Your task to perform on an android device: change your default location settings in chrome Image 0: 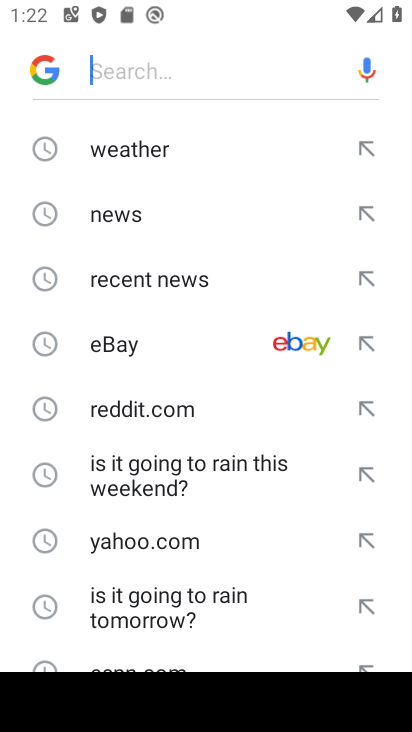
Step 0: press home button
Your task to perform on an android device: change your default location settings in chrome Image 1: 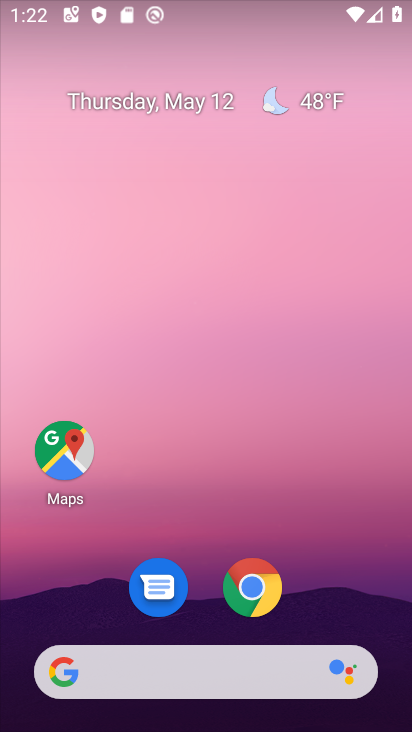
Step 1: click (258, 609)
Your task to perform on an android device: change your default location settings in chrome Image 2: 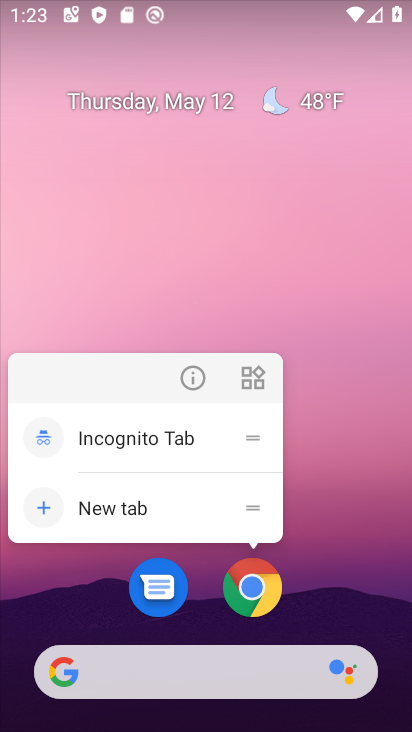
Step 2: click (255, 612)
Your task to perform on an android device: change your default location settings in chrome Image 3: 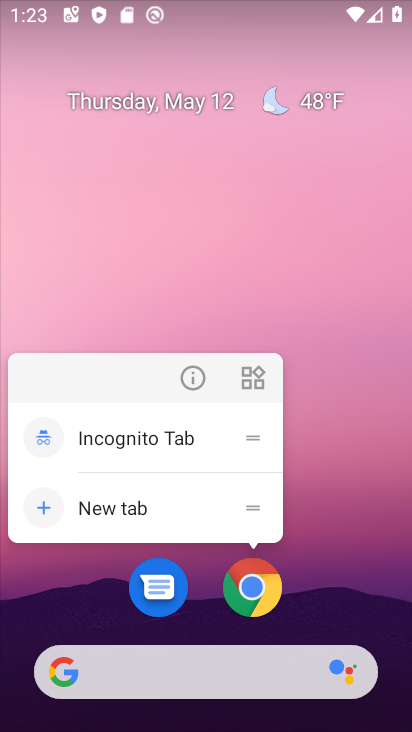
Step 3: click (267, 597)
Your task to perform on an android device: change your default location settings in chrome Image 4: 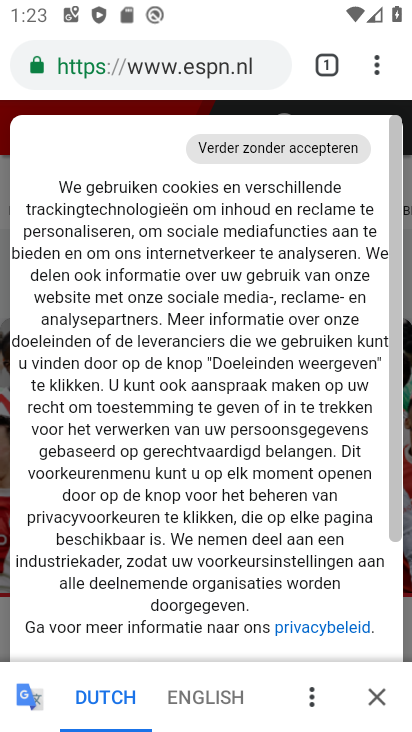
Step 4: click (385, 63)
Your task to perform on an android device: change your default location settings in chrome Image 5: 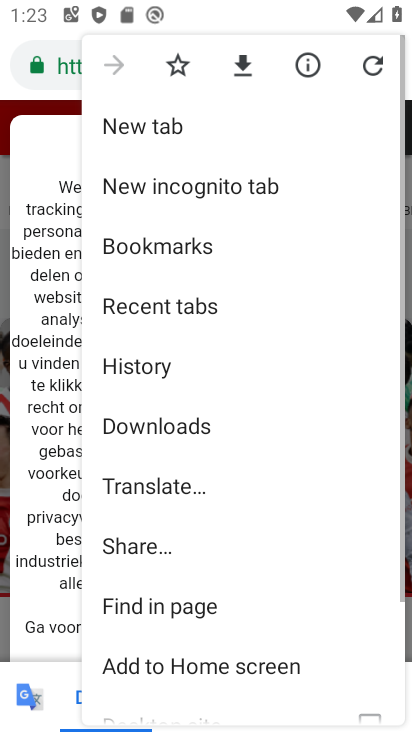
Step 5: drag from (244, 483) to (247, 181)
Your task to perform on an android device: change your default location settings in chrome Image 6: 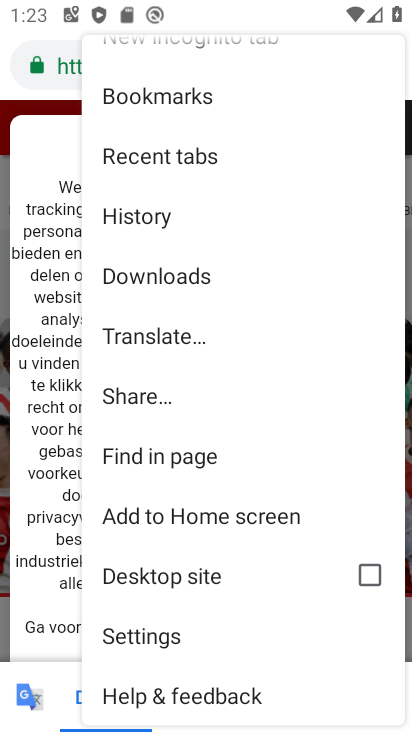
Step 6: drag from (240, 443) to (231, 230)
Your task to perform on an android device: change your default location settings in chrome Image 7: 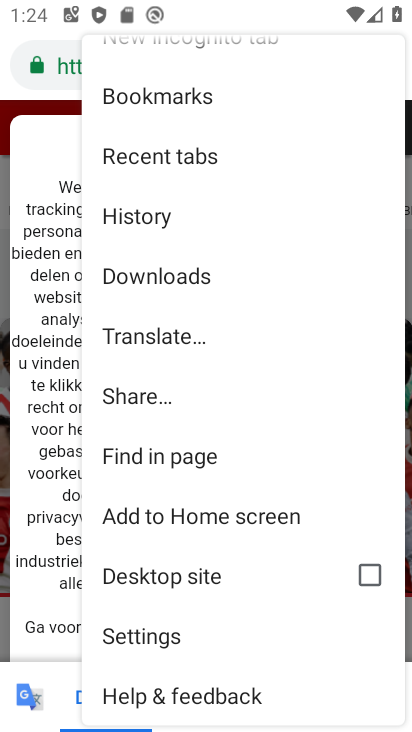
Step 7: click (155, 645)
Your task to perform on an android device: change your default location settings in chrome Image 8: 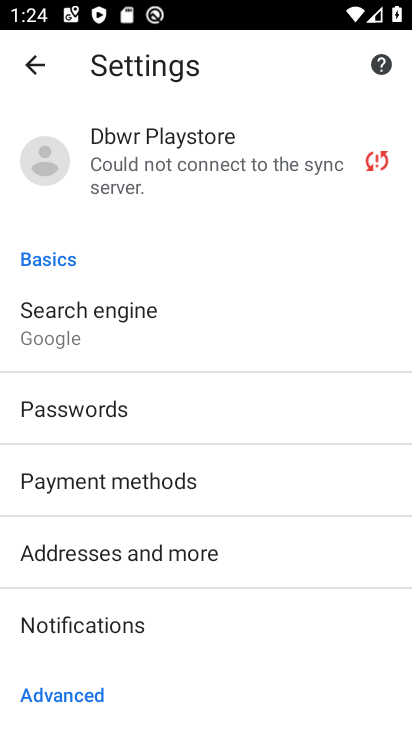
Step 8: drag from (112, 361) to (109, 219)
Your task to perform on an android device: change your default location settings in chrome Image 9: 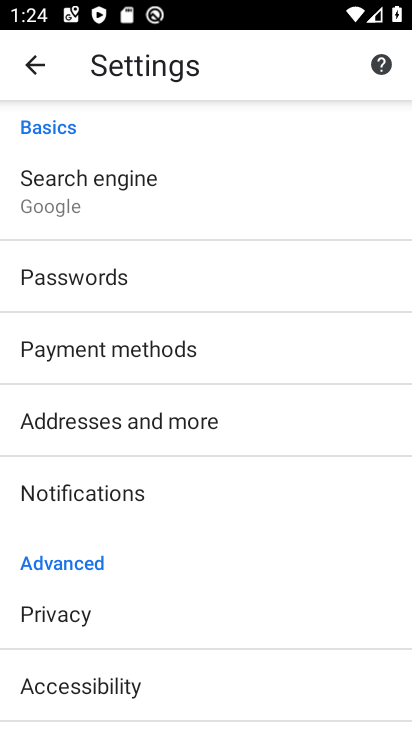
Step 9: drag from (124, 390) to (142, 269)
Your task to perform on an android device: change your default location settings in chrome Image 10: 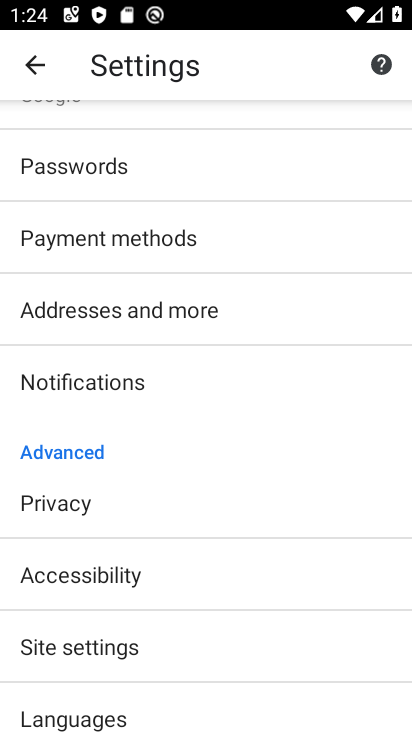
Step 10: drag from (147, 535) to (162, 256)
Your task to perform on an android device: change your default location settings in chrome Image 11: 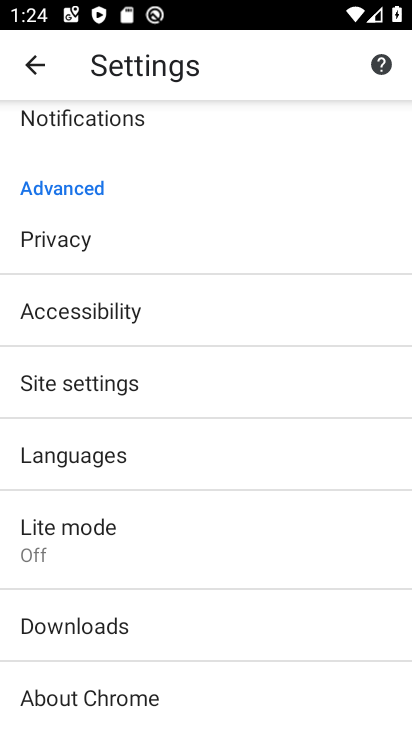
Step 11: click (125, 384)
Your task to perform on an android device: change your default location settings in chrome Image 12: 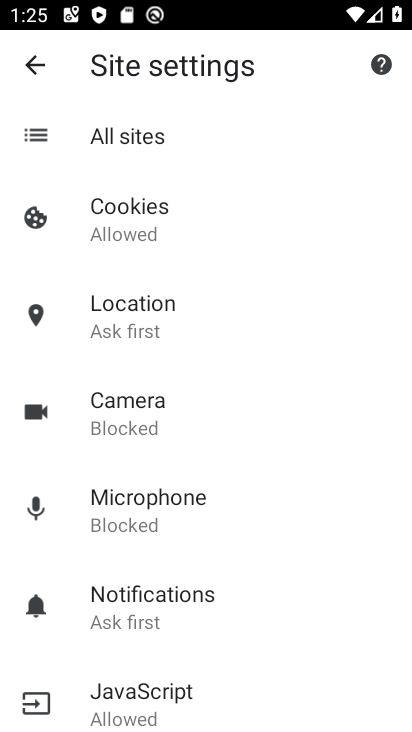
Step 12: drag from (205, 574) to (237, 357)
Your task to perform on an android device: change your default location settings in chrome Image 13: 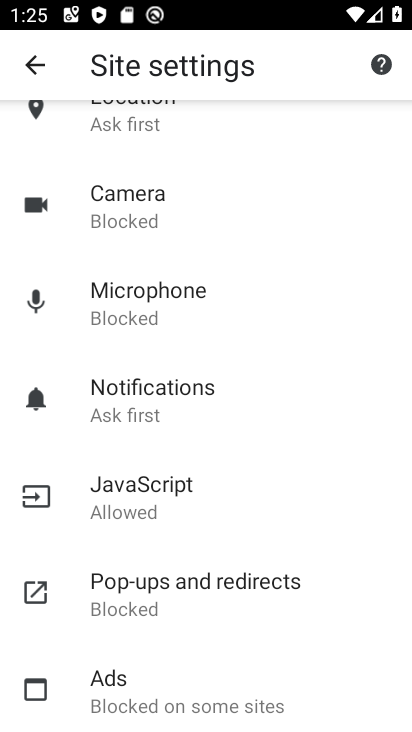
Step 13: drag from (230, 396) to (206, 642)
Your task to perform on an android device: change your default location settings in chrome Image 14: 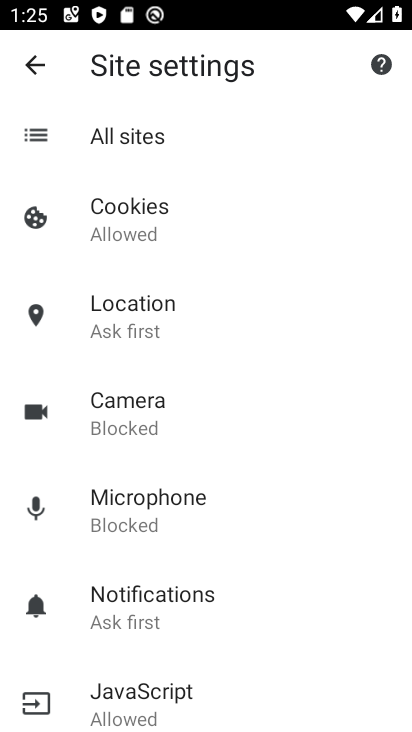
Step 14: click (217, 309)
Your task to perform on an android device: change your default location settings in chrome Image 15: 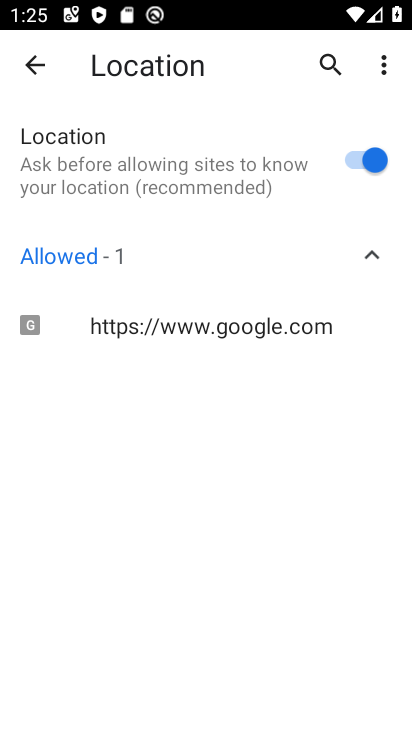
Step 15: click (356, 158)
Your task to perform on an android device: change your default location settings in chrome Image 16: 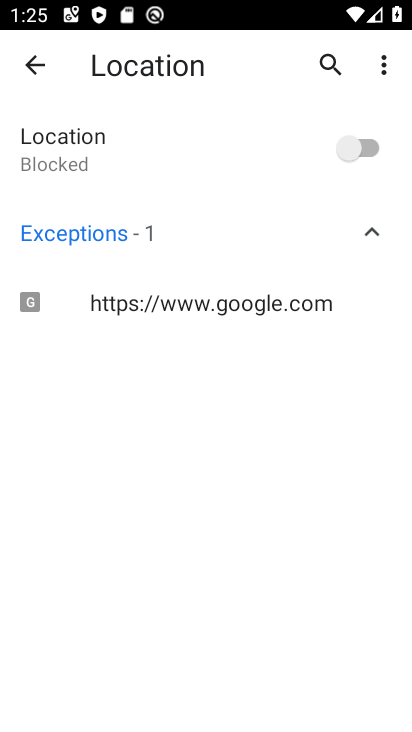
Step 16: task complete